Your task to perform on an android device: Open Yahoo.com Image 0: 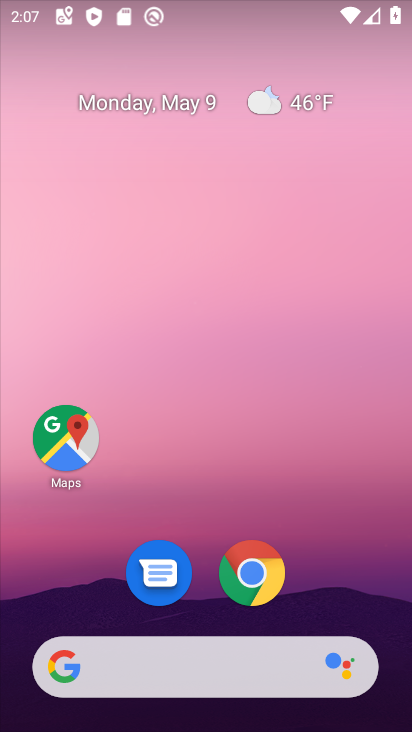
Step 0: click (258, 571)
Your task to perform on an android device: Open Yahoo.com Image 1: 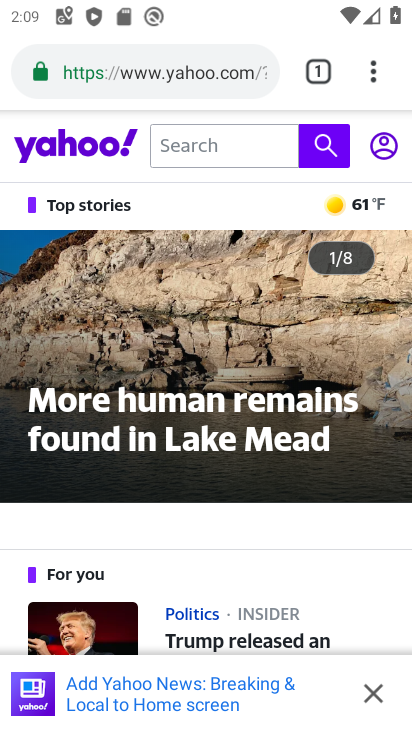
Step 1: task complete